Your task to perform on an android device: turn off priority inbox in the gmail app Image 0: 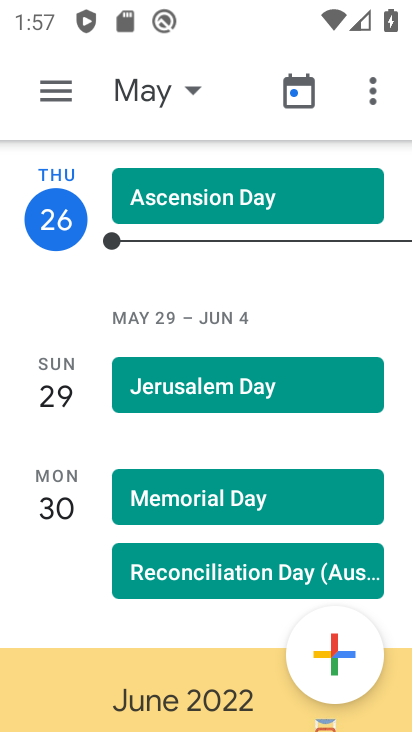
Step 0: press home button
Your task to perform on an android device: turn off priority inbox in the gmail app Image 1: 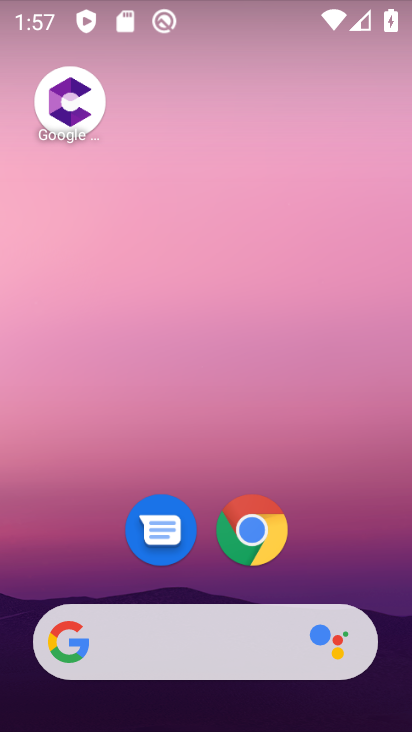
Step 1: drag from (59, 587) to (161, 141)
Your task to perform on an android device: turn off priority inbox in the gmail app Image 2: 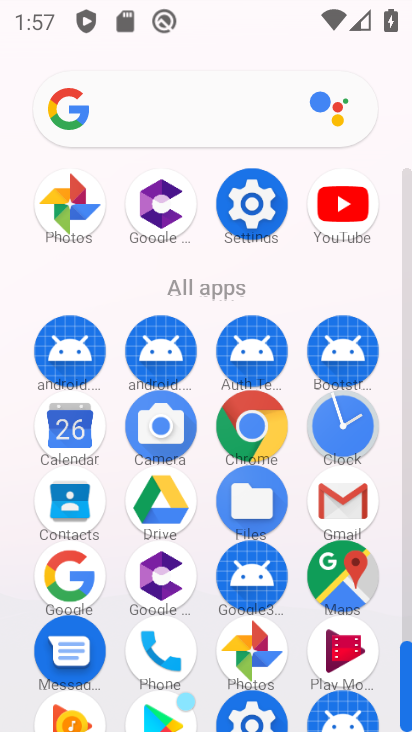
Step 2: drag from (162, 706) to (253, 428)
Your task to perform on an android device: turn off priority inbox in the gmail app Image 3: 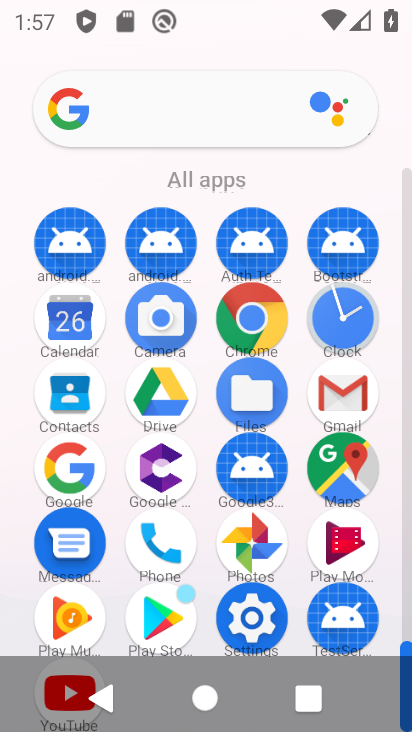
Step 3: click (343, 388)
Your task to perform on an android device: turn off priority inbox in the gmail app Image 4: 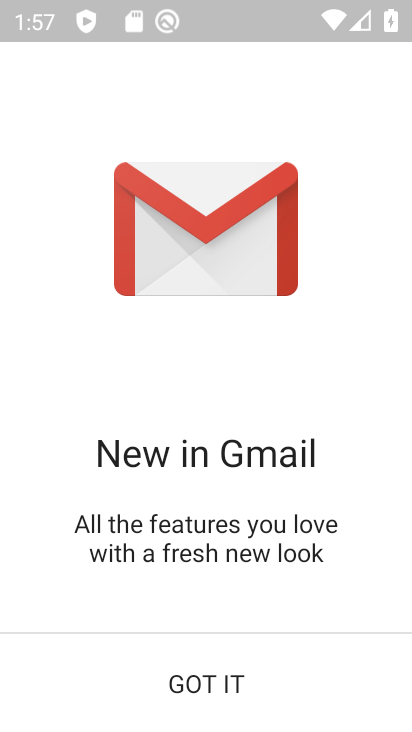
Step 4: click (219, 689)
Your task to perform on an android device: turn off priority inbox in the gmail app Image 5: 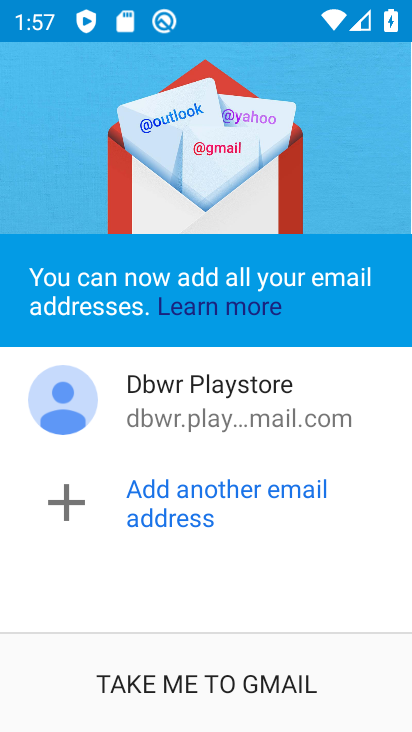
Step 5: click (226, 682)
Your task to perform on an android device: turn off priority inbox in the gmail app Image 6: 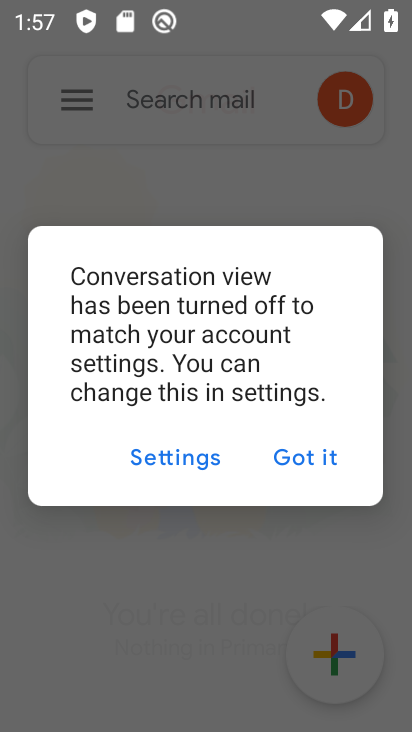
Step 6: click (331, 445)
Your task to perform on an android device: turn off priority inbox in the gmail app Image 7: 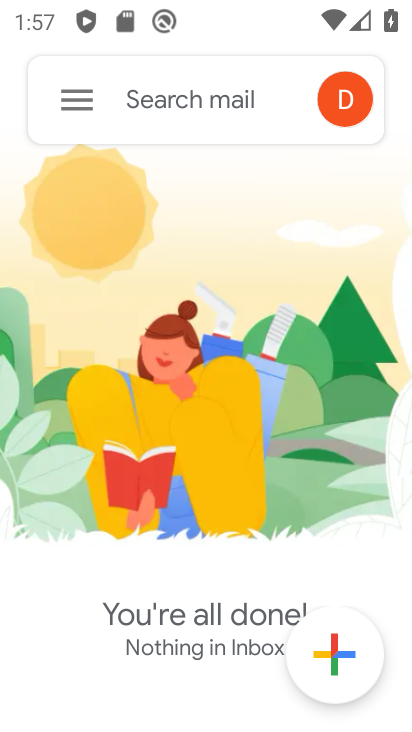
Step 7: click (104, 103)
Your task to perform on an android device: turn off priority inbox in the gmail app Image 8: 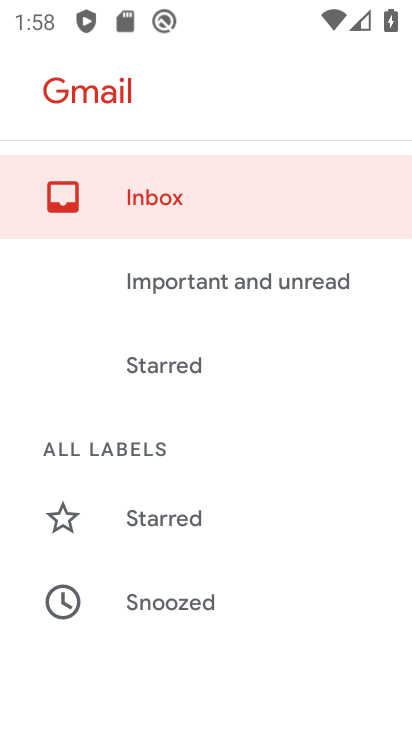
Step 8: drag from (166, 643) to (338, 130)
Your task to perform on an android device: turn off priority inbox in the gmail app Image 9: 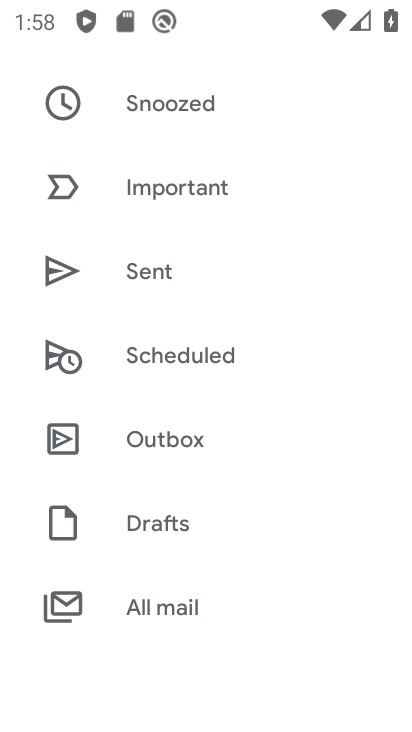
Step 9: drag from (207, 552) to (324, 169)
Your task to perform on an android device: turn off priority inbox in the gmail app Image 10: 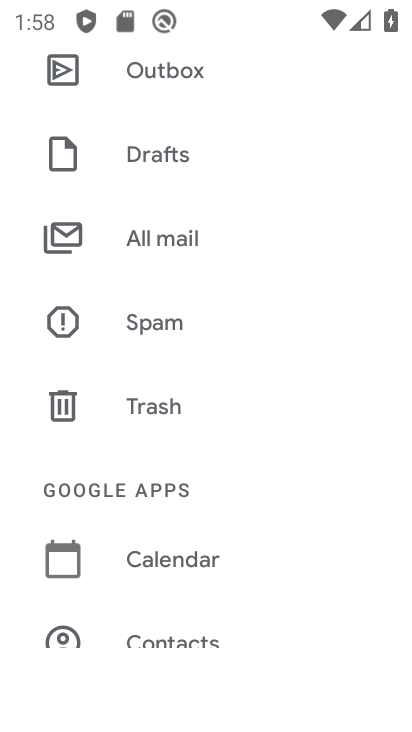
Step 10: drag from (172, 617) to (323, 203)
Your task to perform on an android device: turn off priority inbox in the gmail app Image 11: 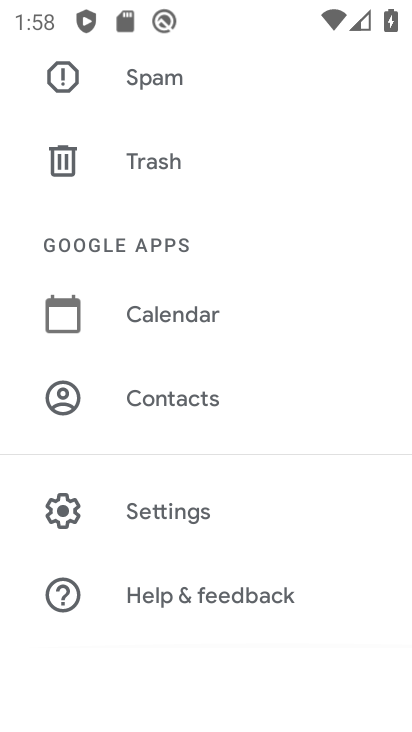
Step 11: click (190, 518)
Your task to perform on an android device: turn off priority inbox in the gmail app Image 12: 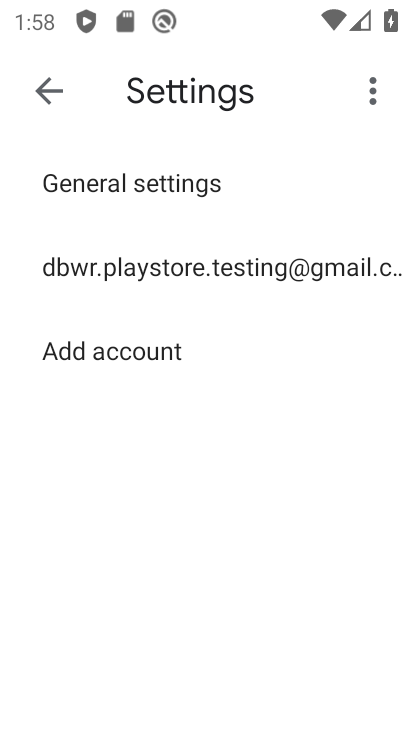
Step 12: click (291, 269)
Your task to perform on an android device: turn off priority inbox in the gmail app Image 13: 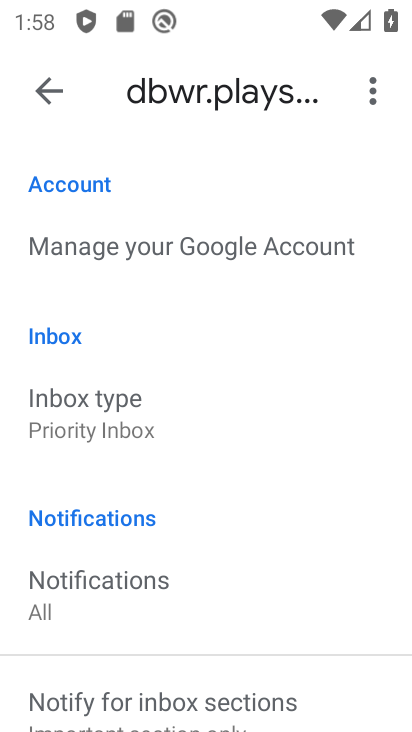
Step 13: click (218, 414)
Your task to perform on an android device: turn off priority inbox in the gmail app Image 14: 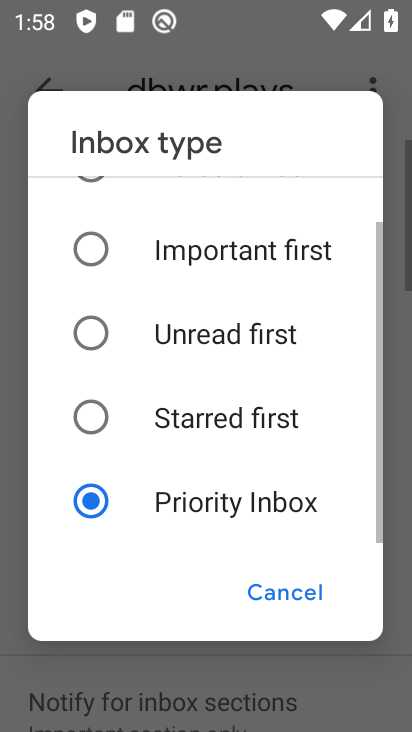
Step 14: drag from (227, 468) to (227, 565)
Your task to perform on an android device: turn off priority inbox in the gmail app Image 15: 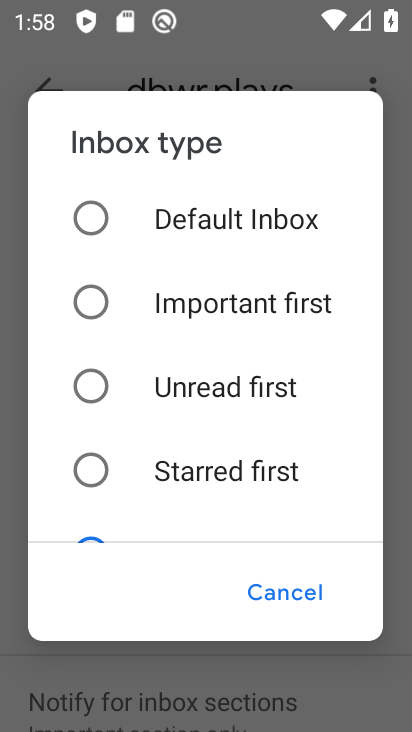
Step 15: click (92, 213)
Your task to perform on an android device: turn off priority inbox in the gmail app Image 16: 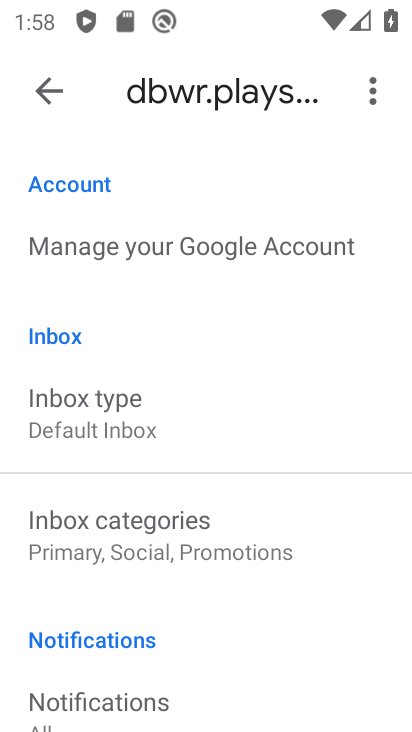
Step 16: task complete